Your task to perform on an android device: Go to display settings Image 0: 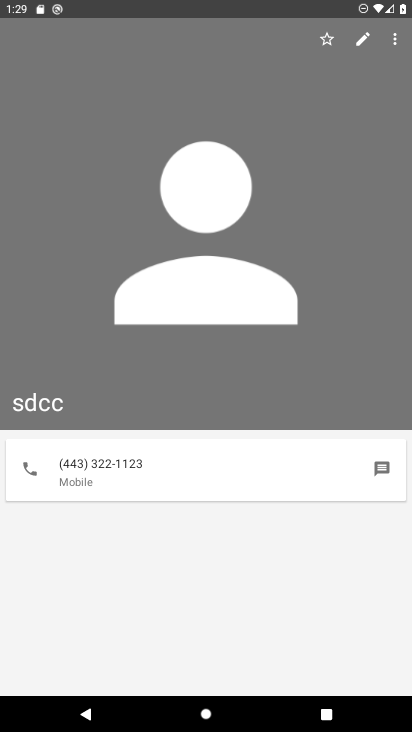
Step 0: press home button
Your task to perform on an android device: Go to display settings Image 1: 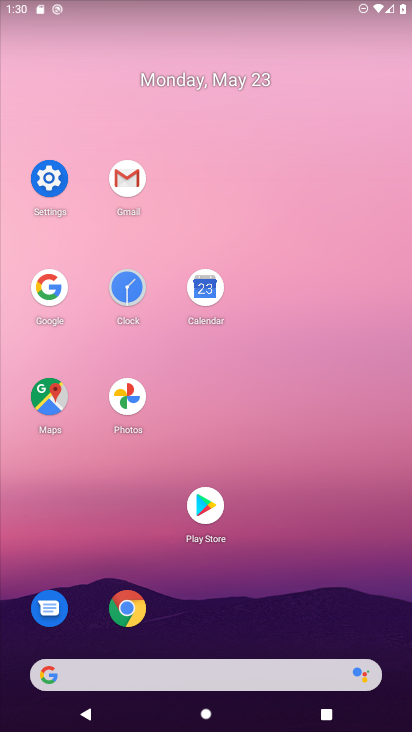
Step 1: click (59, 180)
Your task to perform on an android device: Go to display settings Image 2: 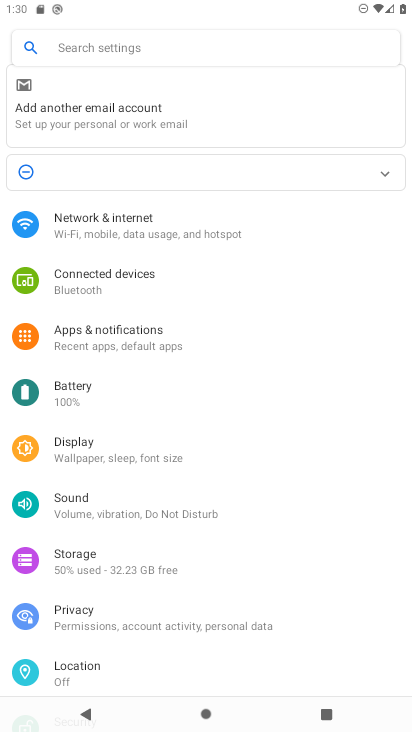
Step 2: click (189, 446)
Your task to perform on an android device: Go to display settings Image 3: 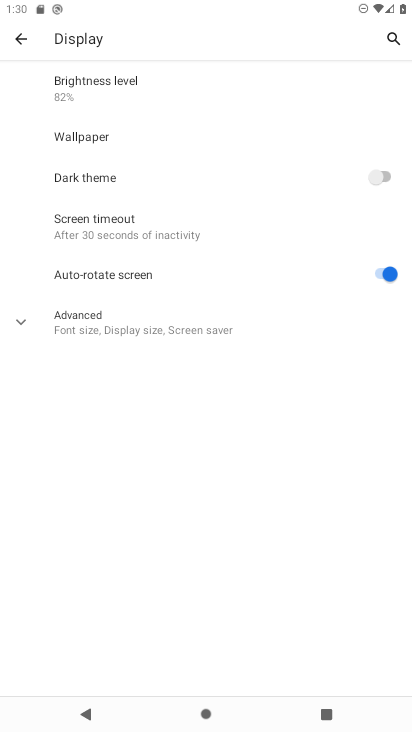
Step 3: task complete